Your task to perform on an android device: Is it going to rain tomorrow? Image 0: 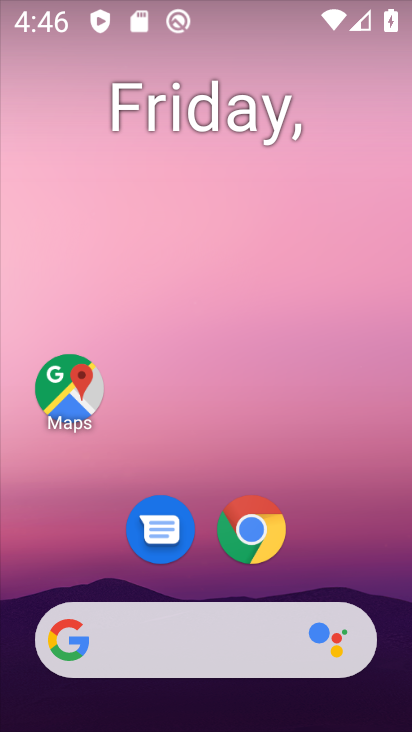
Step 0: press home button
Your task to perform on an android device: Is it going to rain tomorrow? Image 1: 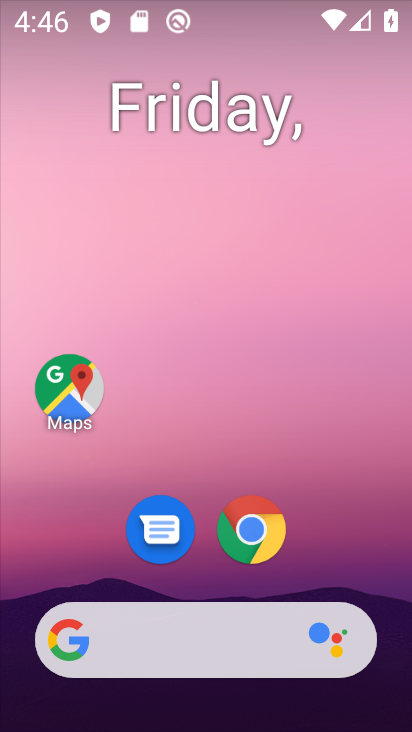
Step 1: click (67, 643)
Your task to perform on an android device: Is it going to rain tomorrow? Image 2: 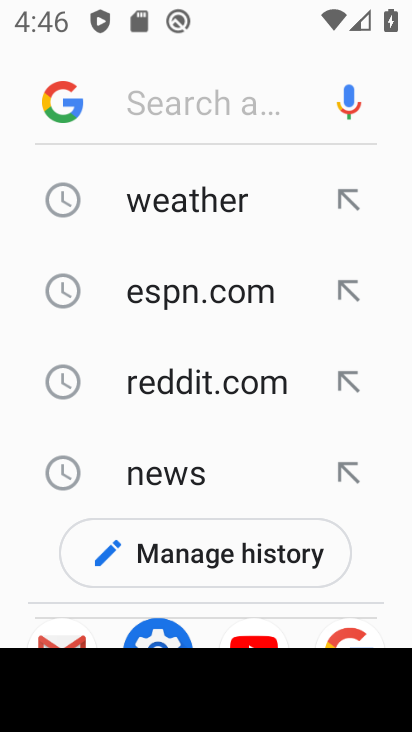
Step 2: type "Is  it going to rain tomorrow ?"
Your task to perform on an android device: Is it going to rain tomorrow? Image 3: 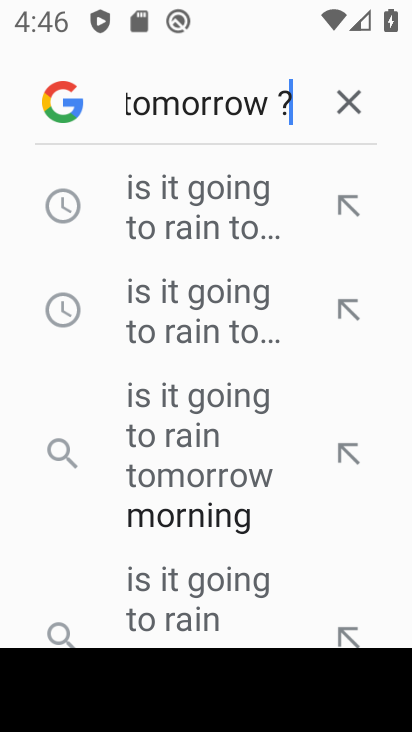
Step 3: click (189, 196)
Your task to perform on an android device: Is it going to rain tomorrow? Image 4: 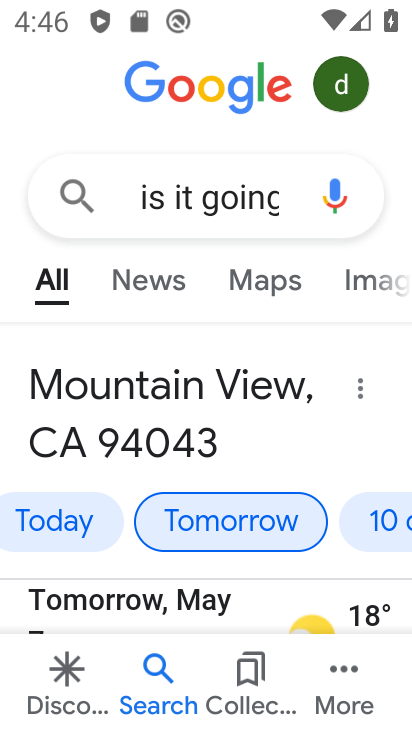
Step 4: task complete